Your task to perform on an android device: open sync settings in chrome Image 0: 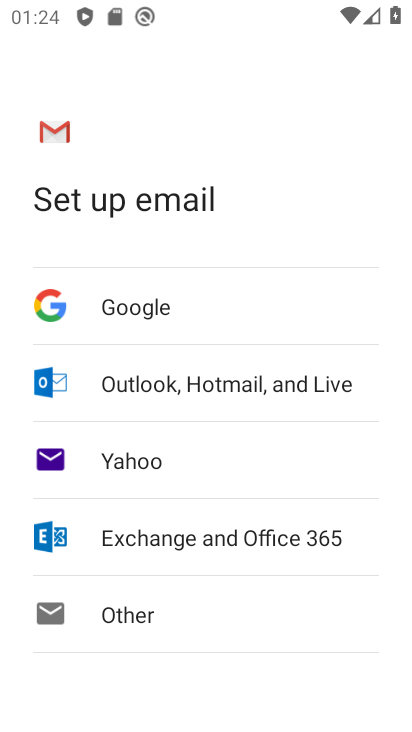
Step 0: press back button
Your task to perform on an android device: open sync settings in chrome Image 1: 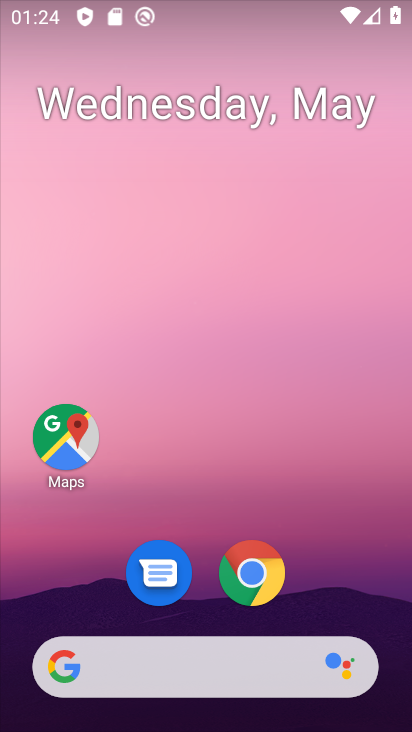
Step 1: click (254, 575)
Your task to perform on an android device: open sync settings in chrome Image 2: 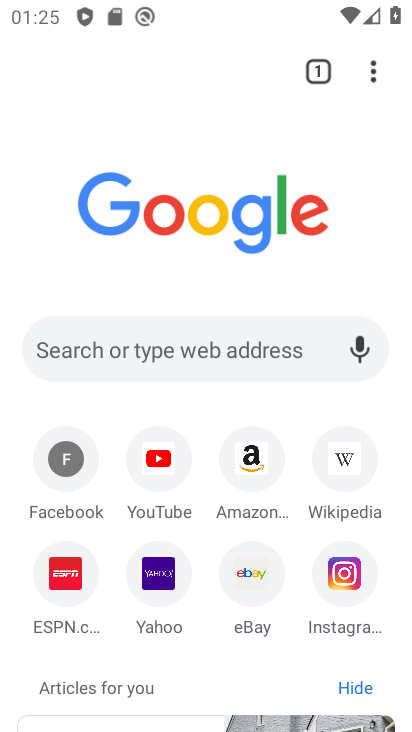
Step 2: click (373, 75)
Your task to perform on an android device: open sync settings in chrome Image 3: 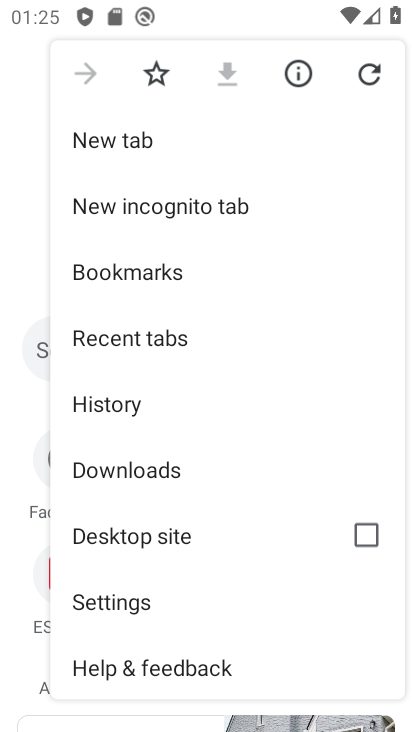
Step 3: click (135, 598)
Your task to perform on an android device: open sync settings in chrome Image 4: 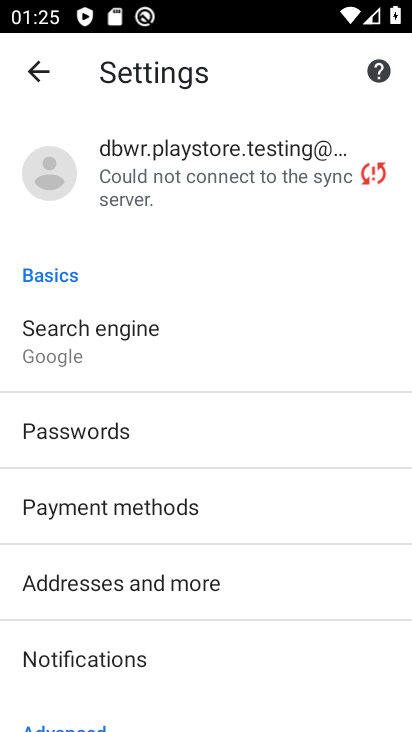
Step 4: drag from (165, 548) to (199, 448)
Your task to perform on an android device: open sync settings in chrome Image 5: 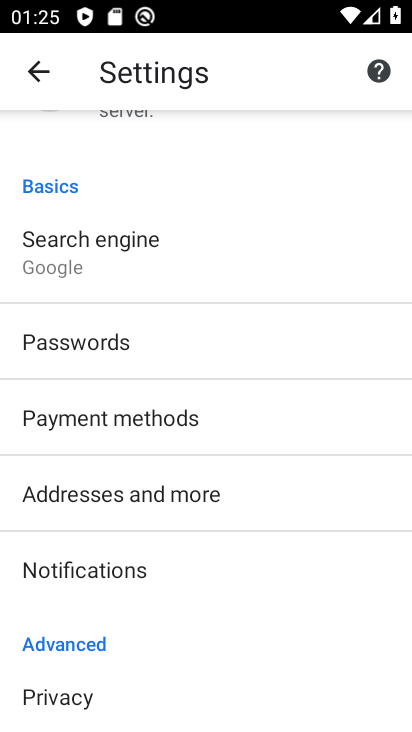
Step 5: drag from (156, 618) to (198, 496)
Your task to perform on an android device: open sync settings in chrome Image 6: 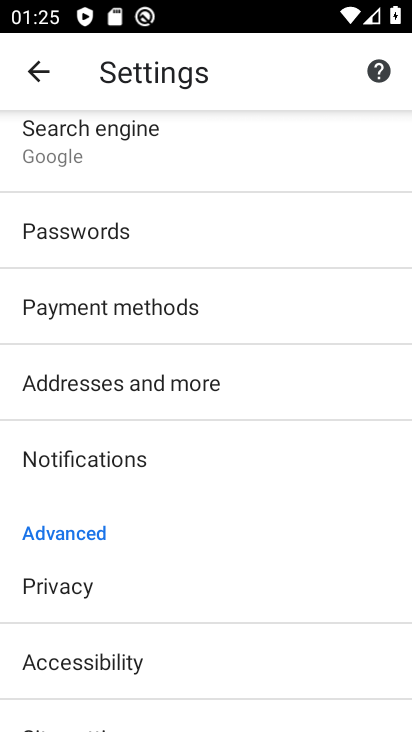
Step 6: drag from (144, 599) to (227, 488)
Your task to perform on an android device: open sync settings in chrome Image 7: 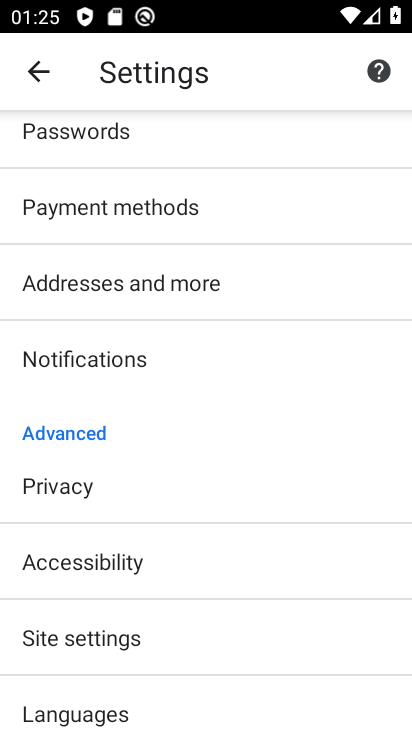
Step 7: drag from (146, 586) to (244, 480)
Your task to perform on an android device: open sync settings in chrome Image 8: 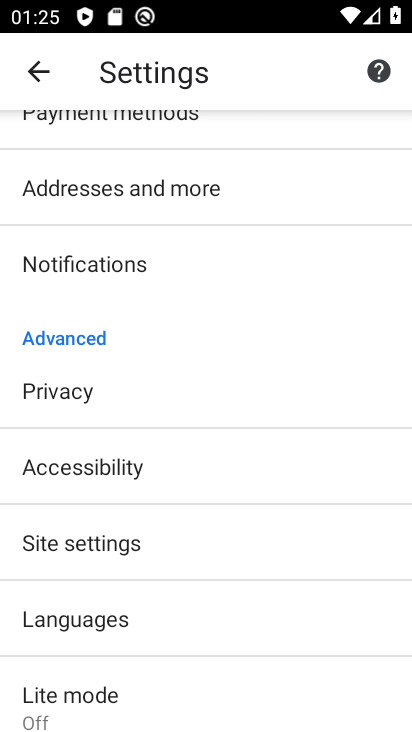
Step 8: click (90, 546)
Your task to perform on an android device: open sync settings in chrome Image 9: 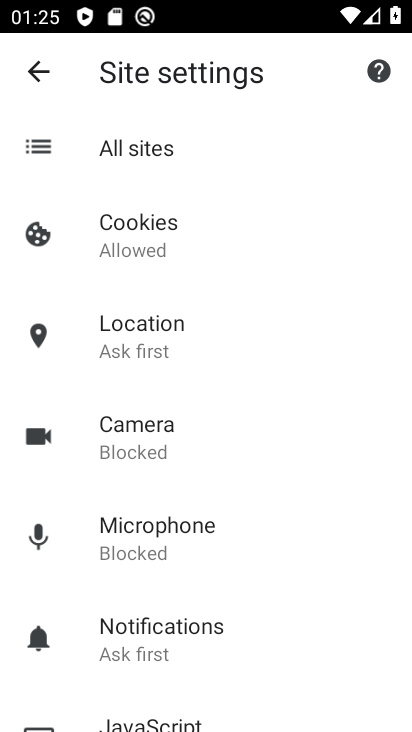
Step 9: drag from (208, 525) to (262, 433)
Your task to perform on an android device: open sync settings in chrome Image 10: 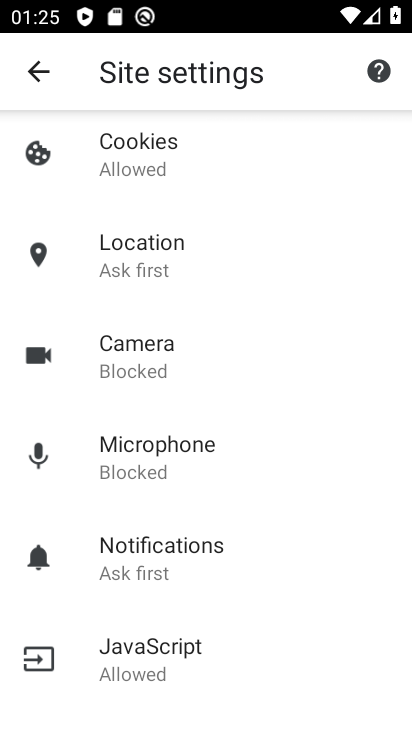
Step 10: drag from (185, 576) to (252, 463)
Your task to perform on an android device: open sync settings in chrome Image 11: 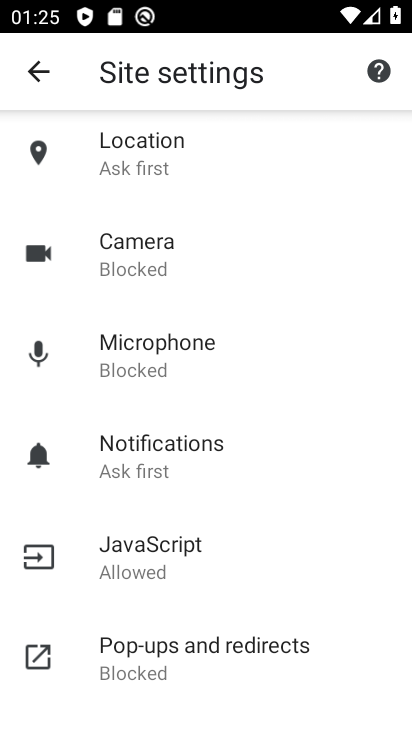
Step 11: drag from (194, 590) to (285, 469)
Your task to perform on an android device: open sync settings in chrome Image 12: 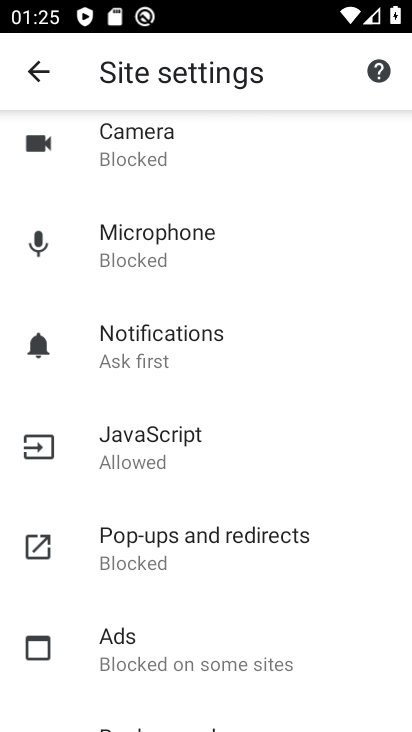
Step 12: drag from (209, 613) to (301, 485)
Your task to perform on an android device: open sync settings in chrome Image 13: 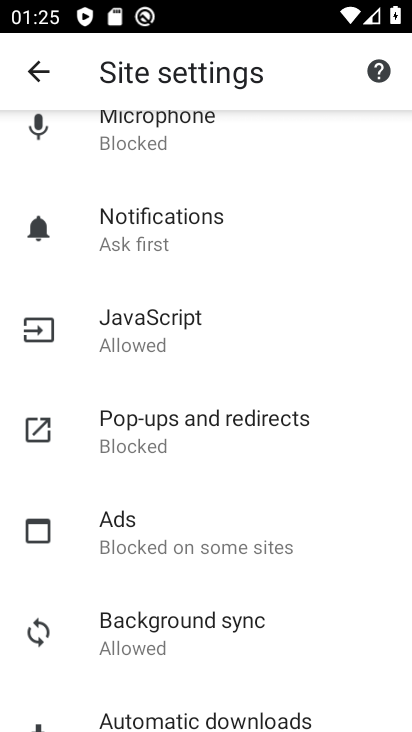
Step 13: drag from (218, 608) to (313, 500)
Your task to perform on an android device: open sync settings in chrome Image 14: 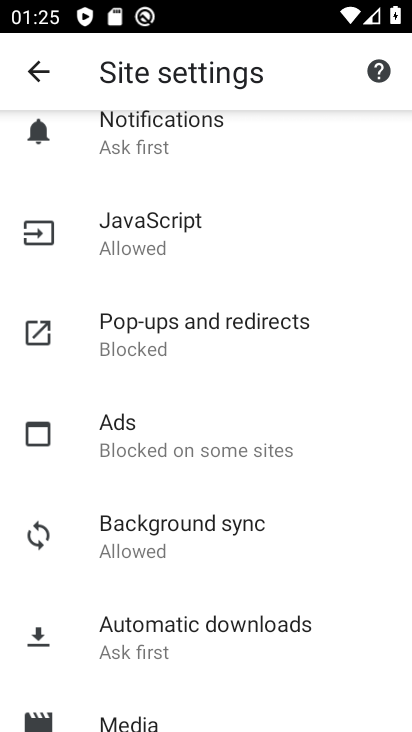
Step 14: click (200, 522)
Your task to perform on an android device: open sync settings in chrome Image 15: 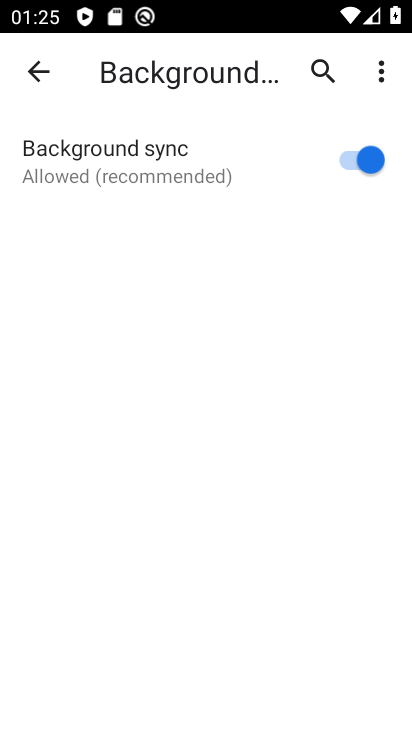
Step 15: task complete